Your task to perform on an android device: Open privacy settings Image 0: 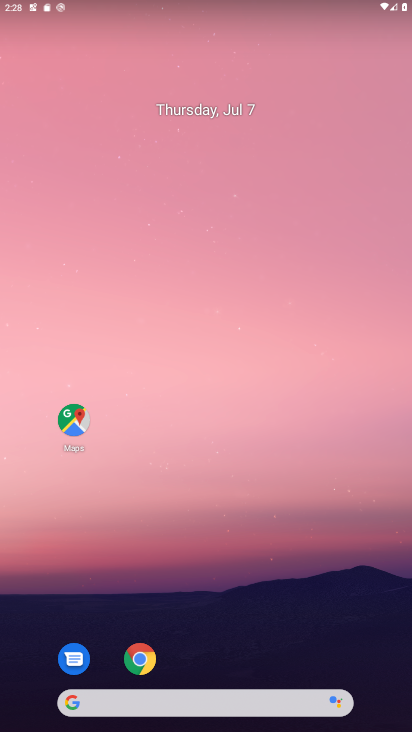
Step 0: drag from (132, 517) to (184, 186)
Your task to perform on an android device: Open privacy settings Image 1: 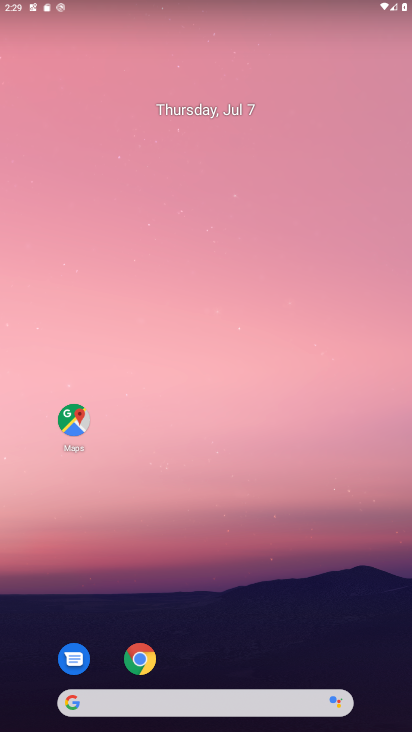
Step 1: drag from (176, 626) to (218, 347)
Your task to perform on an android device: Open privacy settings Image 2: 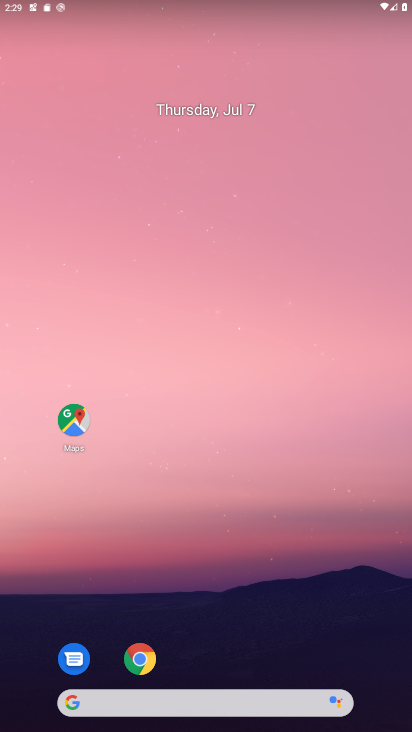
Step 2: drag from (175, 519) to (262, 161)
Your task to perform on an android device: Open privacy settings Image 3: 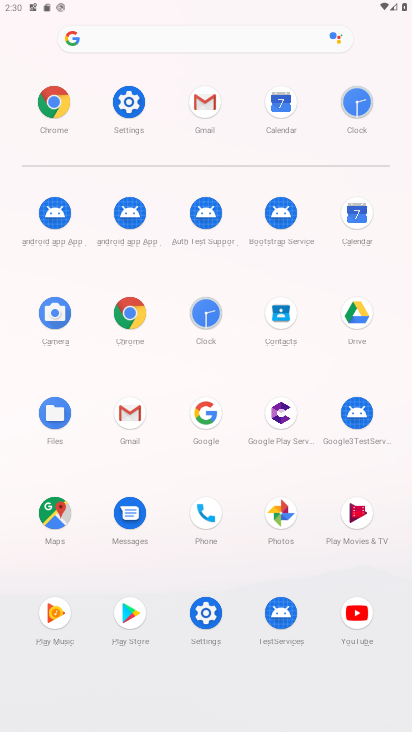
Step 3: click (199, 621)
Your task to perform on an android device: Open privacy settings Image 4: 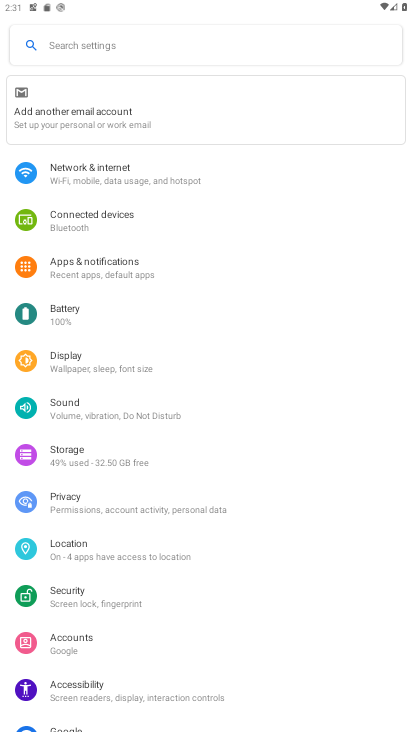
Step 4: drag from (131, 644) to (289, 260)
Your task to perform on an android device: Open privacy settings Image 5: 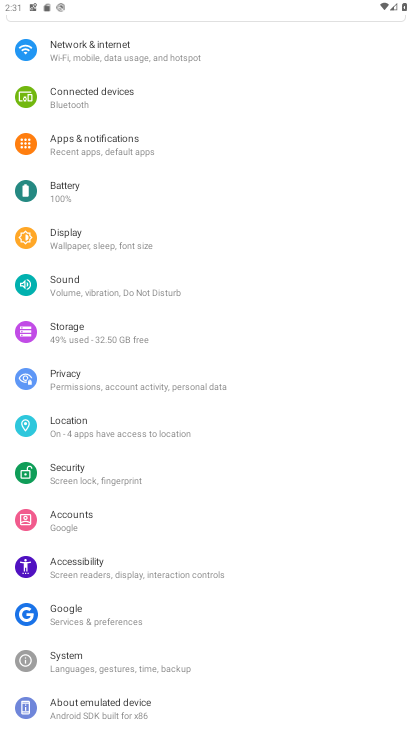
Step 5: click (74, 378)
Your task to perform on an android device: Open privacy settings Image 6: 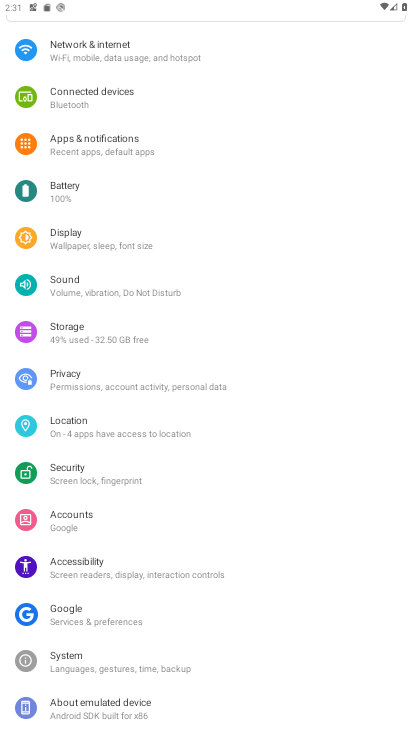
Step 6: click (74, 379)
Your task to perform on an android device: Open privacy settings Image 7: 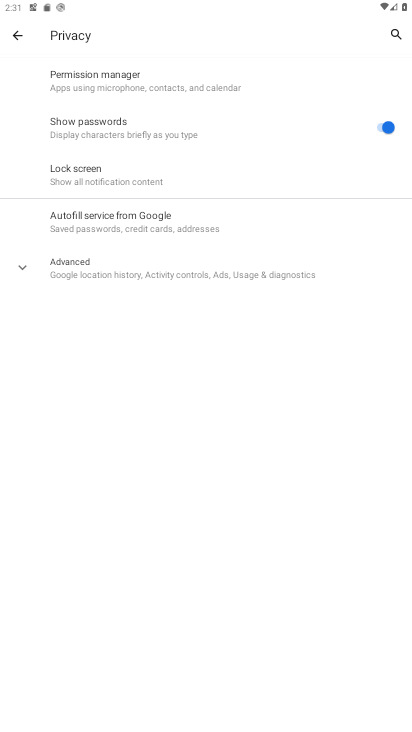
Step 7: click (255, 302)
Your task to perform on an android device: Open privacy settings Image 8: 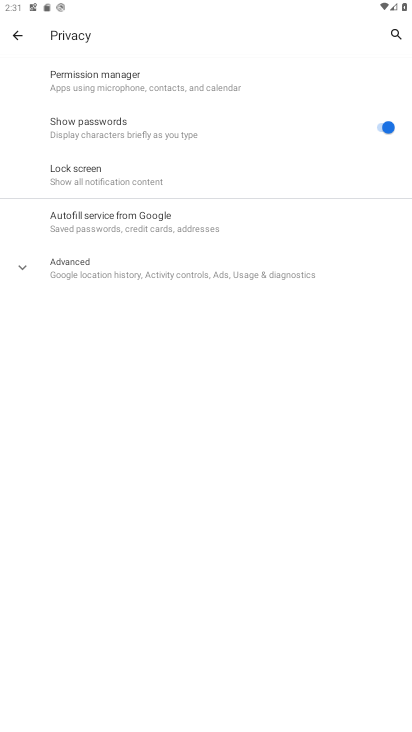
Step 8: task complete